Your task to perform on an android device: snooze an email in the gmail app Image 0: 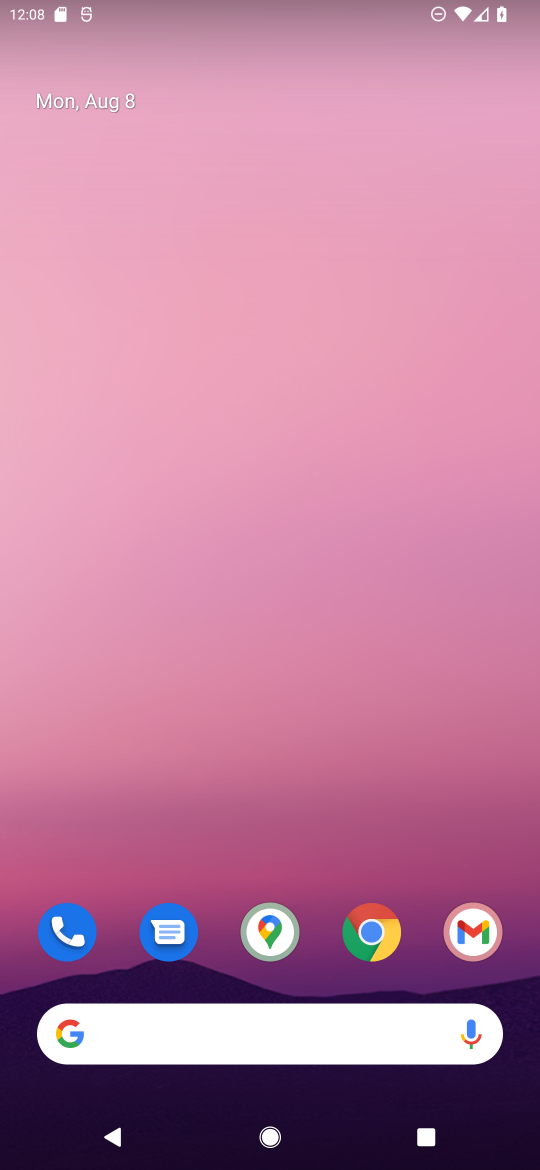
Step 0: click (493, 920)
Your task to perform on an android device: snooze an email in the gmail app Image 1: 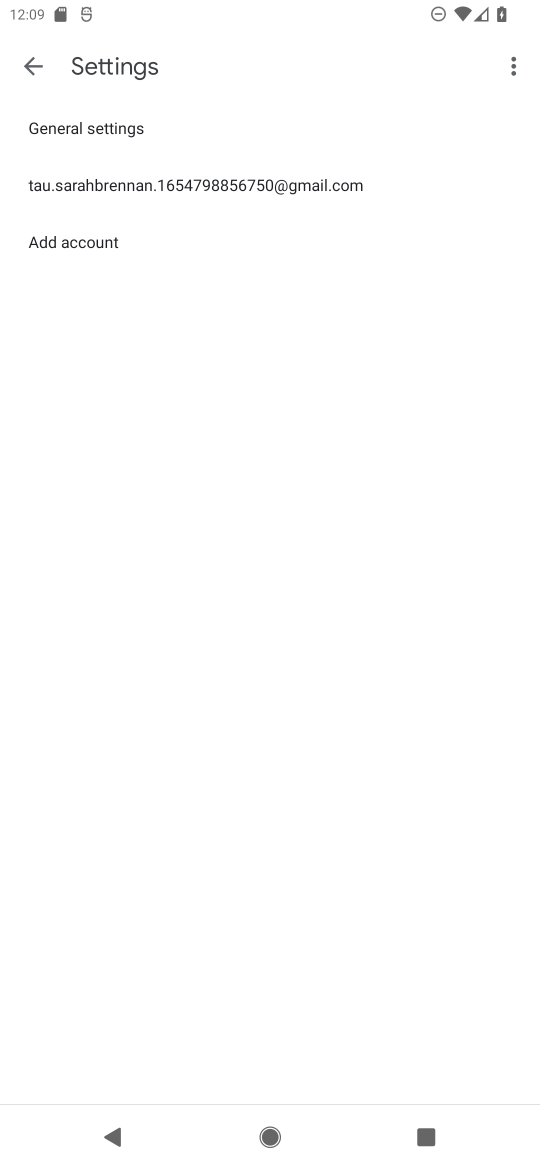
Step 1: click (43, 76)
Your task to perform on an android device: snooze an email in the gmail app Image 2: 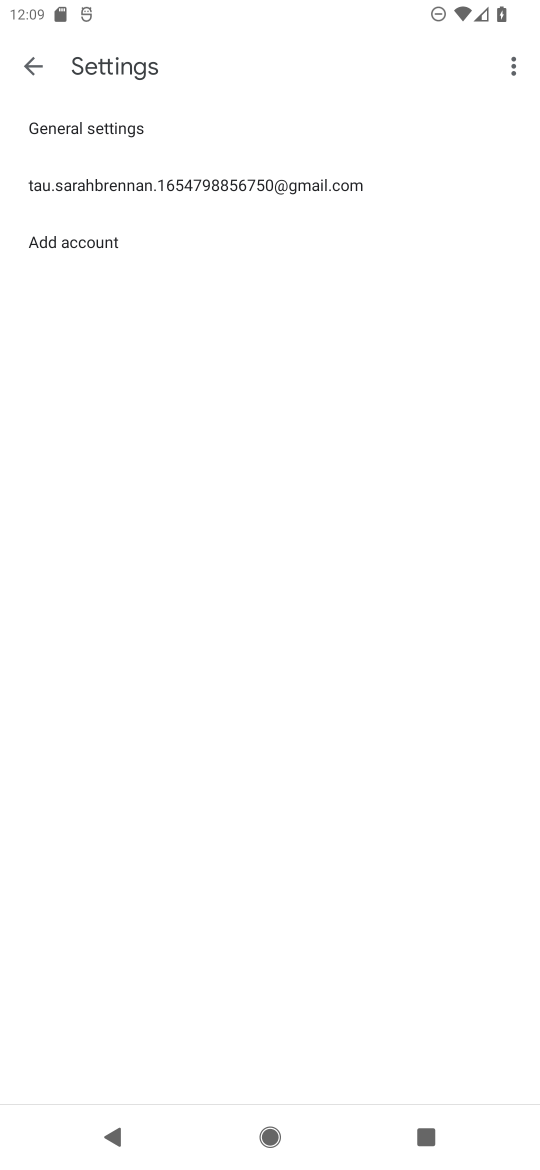
Step 2: click (43, 76)
Your task to perform on an android device: snooze an email in the gmail app Image 3: 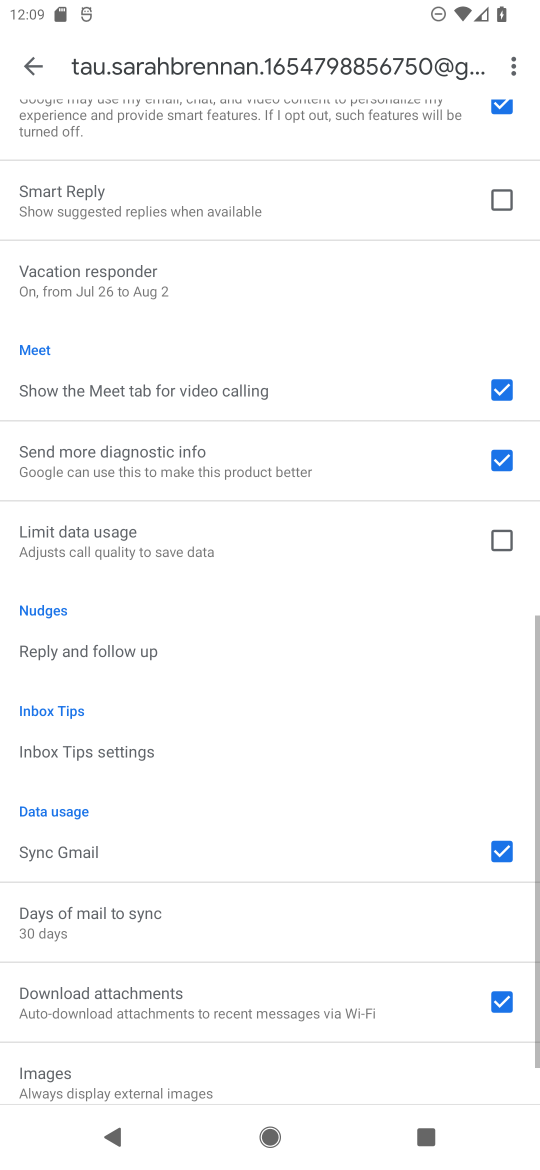
Step 3: click (43, 76)
Your task to perform on an android device: snooze an email in the gmail app Image 4: 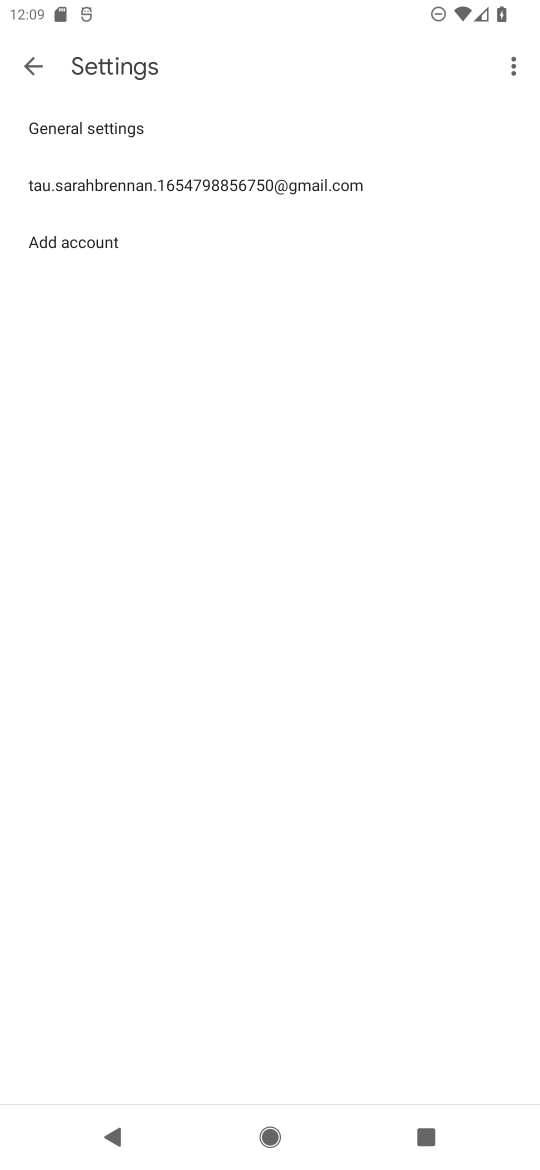
Step 4: click (19, 66)
Your task to perform on an android device: snooze an email in the gmail app Image 5: 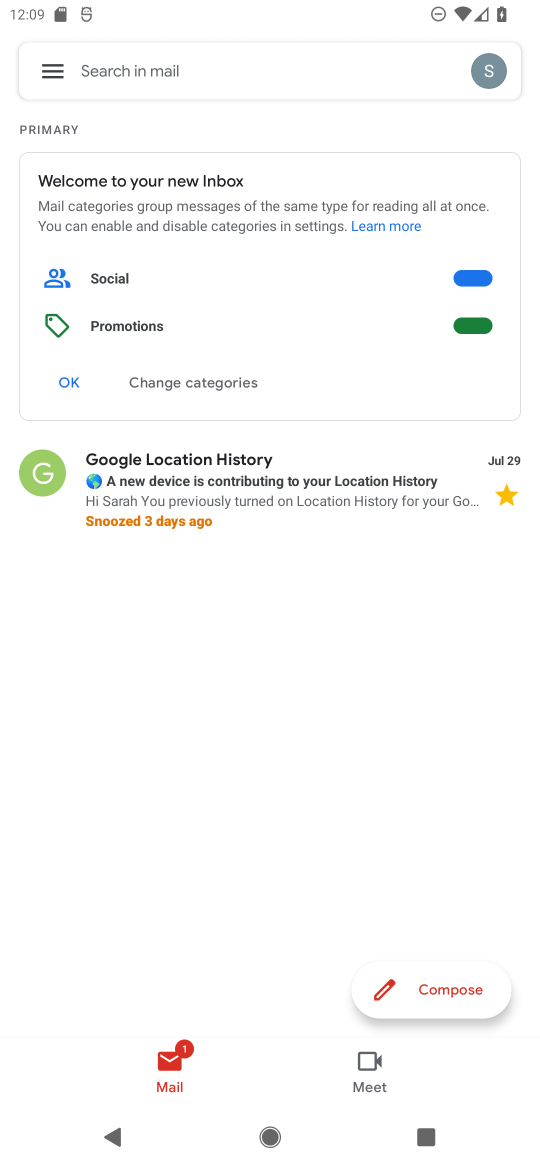
Step 5: click (40, 455)
Your task to perform on an android device: snooze an email in the gmail app Image 6: 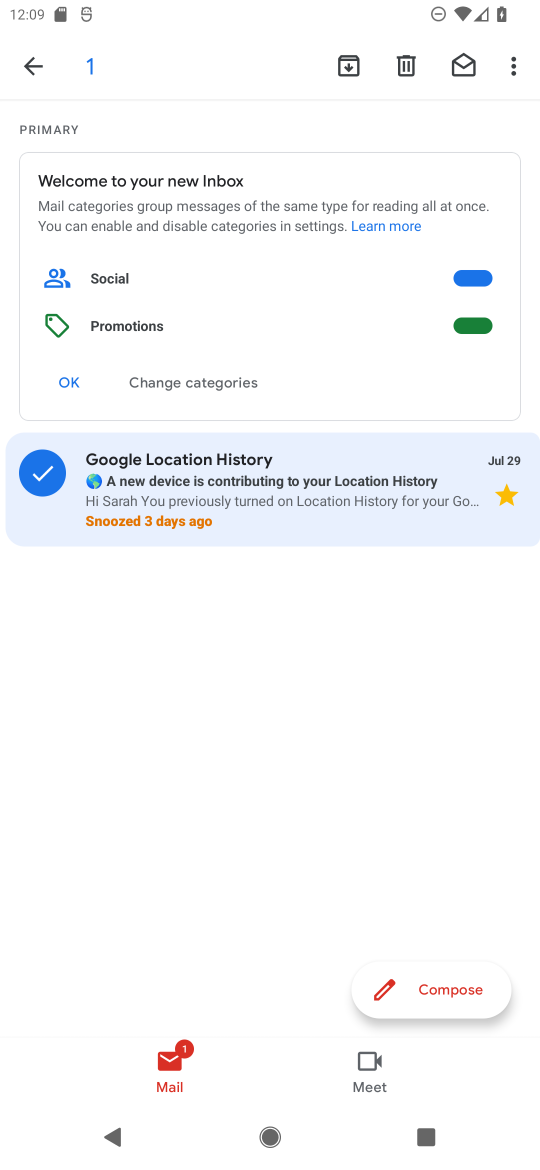
Step 6: click (517, 81)
Your task to perform on an android device: snooze an email in the gmail app Image 7: 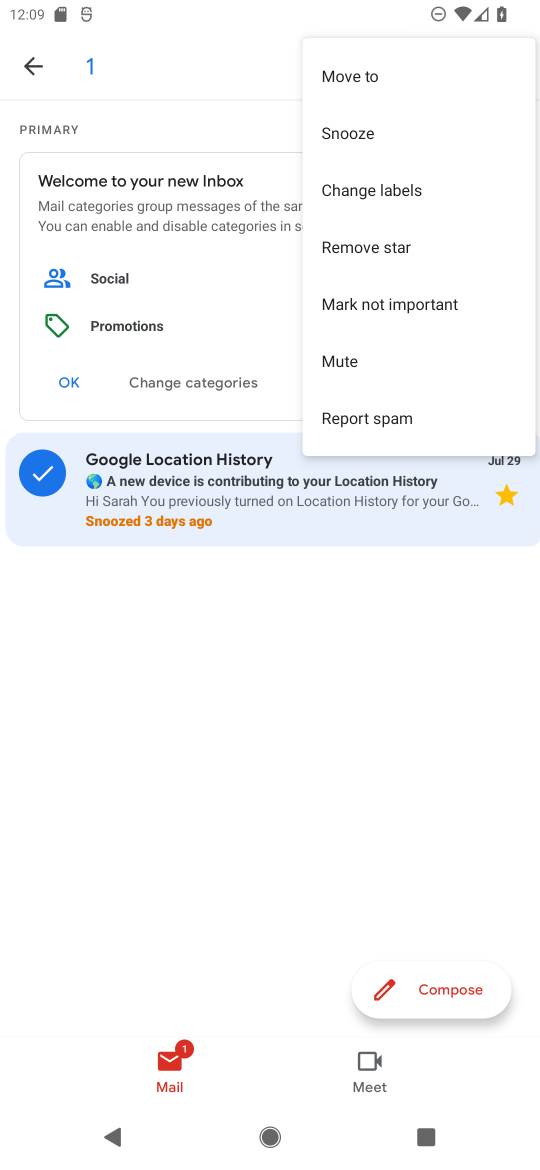
Step 7: click (383, 138)
Your task to perform on an android device: snooze an email in the gmail app Image 8: 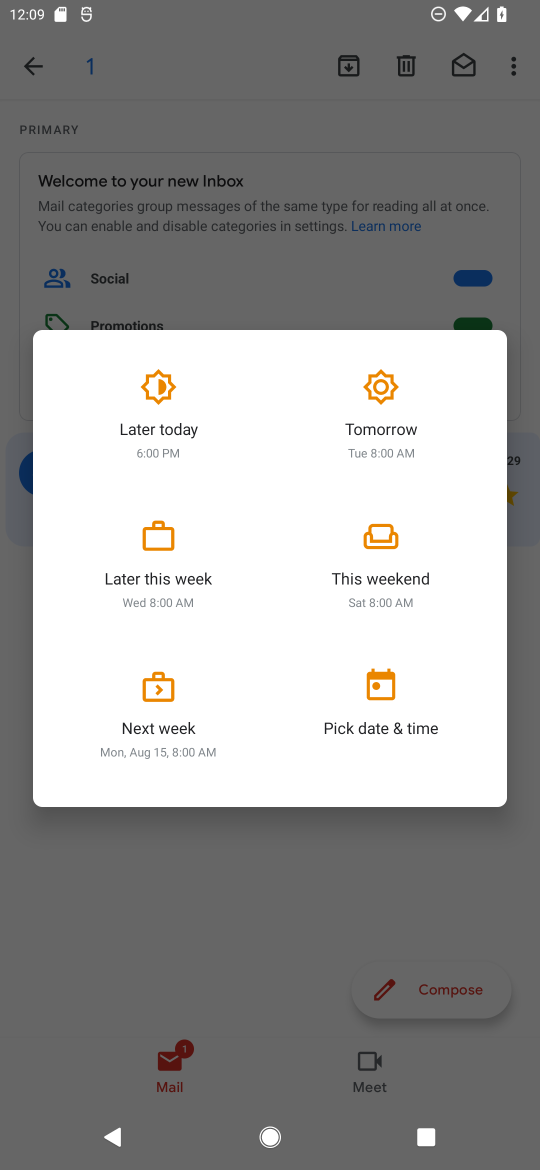
Step 8: click (375, 710)
Your task to perform on an android device: snooze an email in the gmail app Image 9: 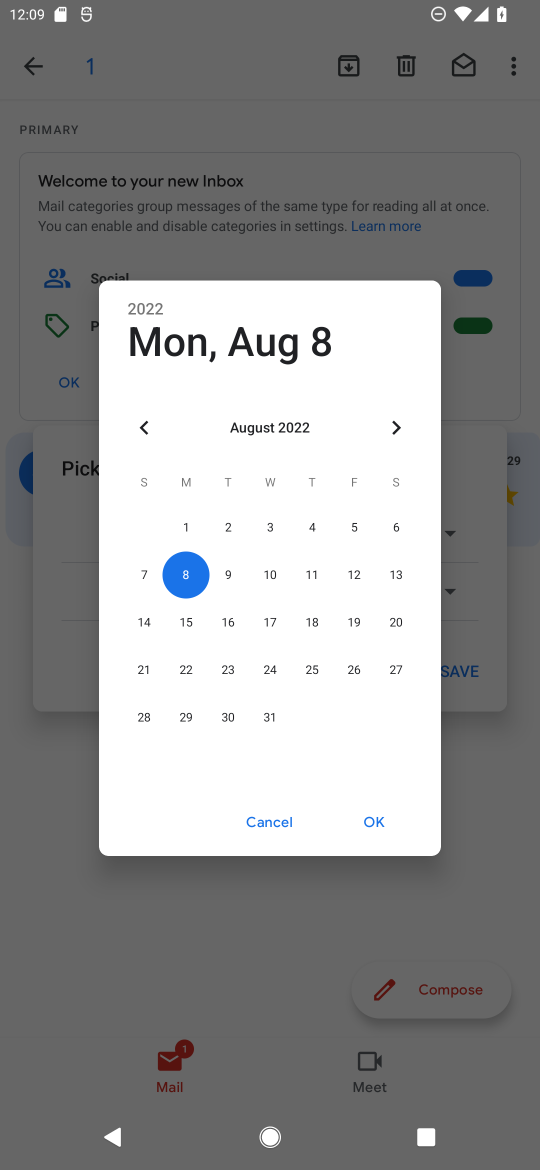
Step 9: click (357, 822)
Your task to perform on an android device: snooze an email in the gmail app Image 10: 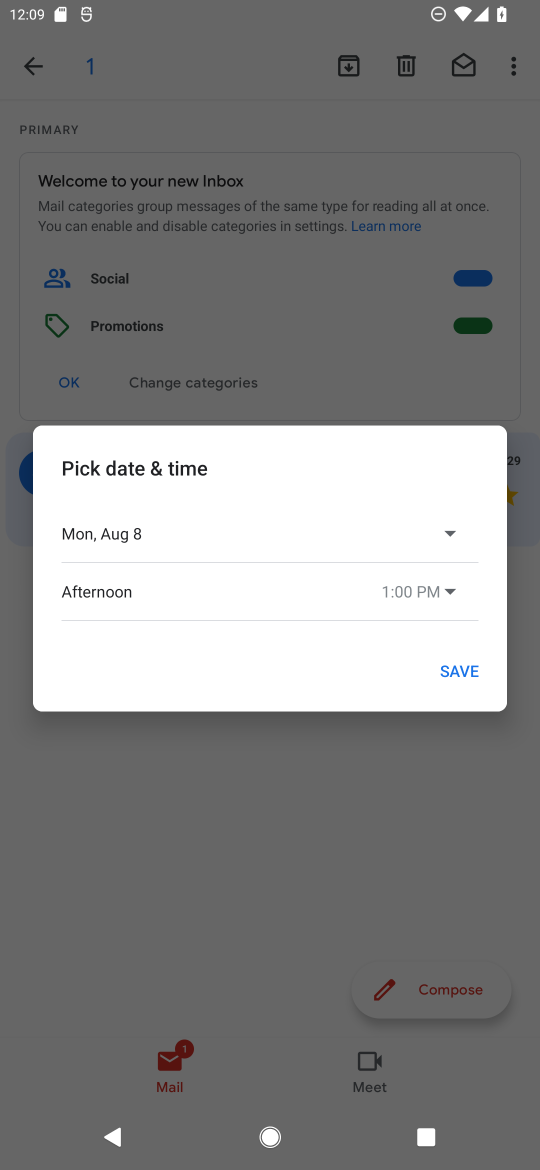
Step 10: click (451, 666)
Your task to perform on an android device: snooze an email in the gmail app Image 11: 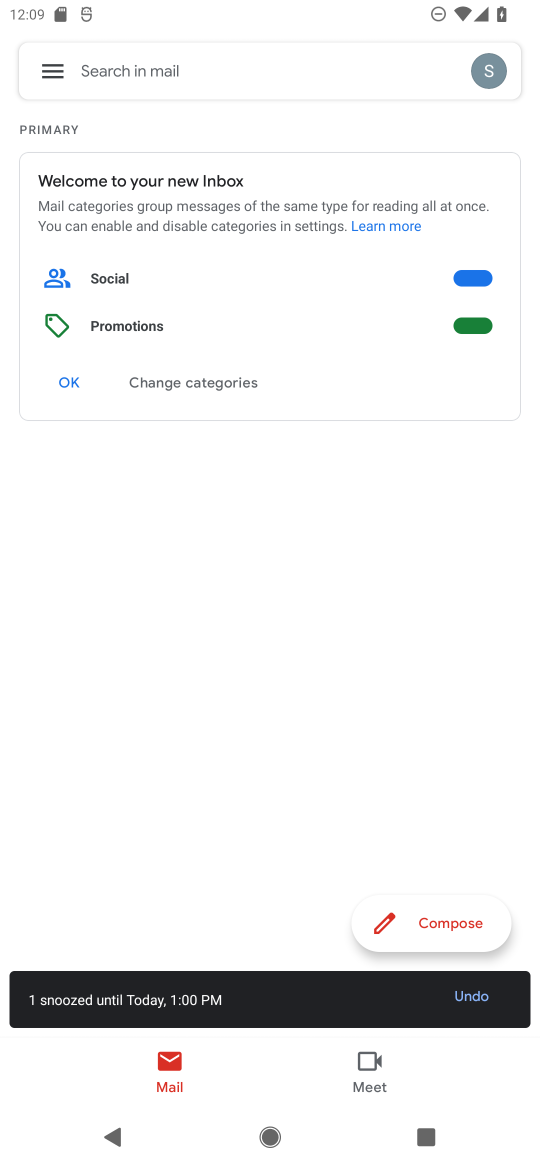
Step 11: task complete